Your task to perform on an android device: Go to ESPN.com Image 0: 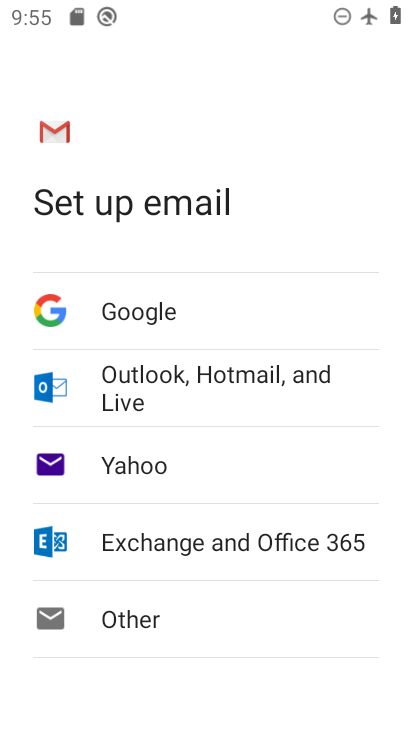
Step 0: press home button
Your task to perform on an android device: Go to ESPN.com Image 1: 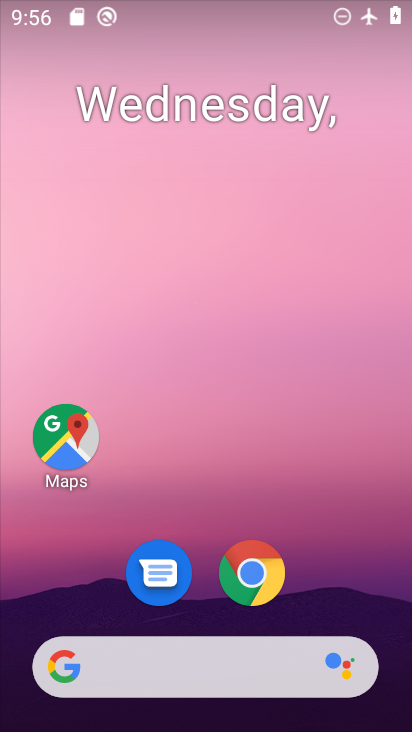
Step 1: click (246, 578)
Your task to perform on an android device: Go to ESPN.com Image 2: 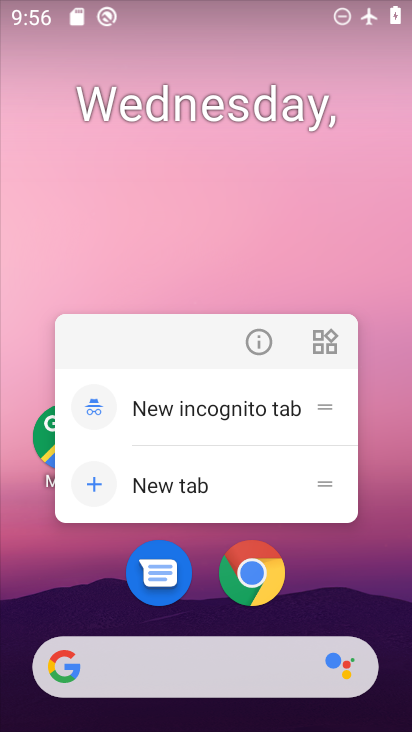
Step 2: click (246, 578)
Your task to perform on an android device: Go to ESPN.com Image 3: 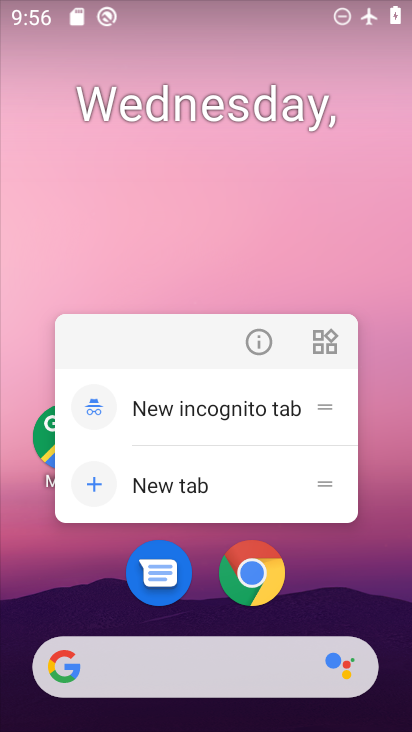
Step 3: click (246, 578)
Your task to perform on an android device: Go to ESPN.com Image 4: 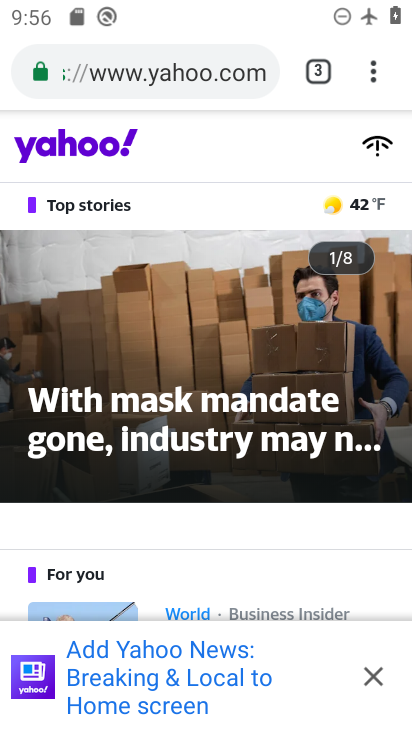
Step 4: click (270, 65)
Your task to perform on an android device: Go to ESPN.com Image 5: 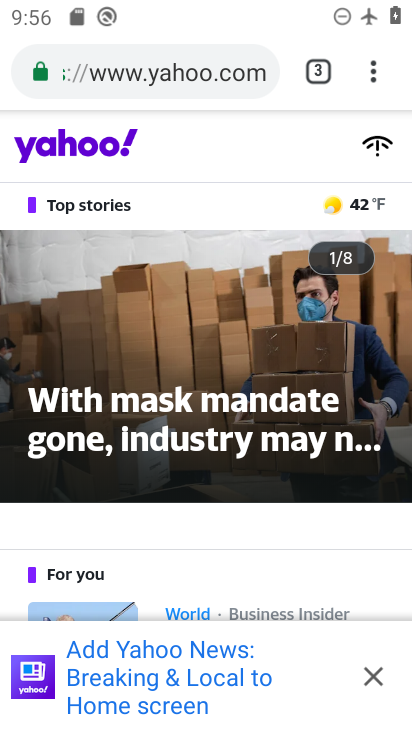
Step 5: click (274, 68)
Your task to perform on an android device: Go to ESPN.com Image 6: 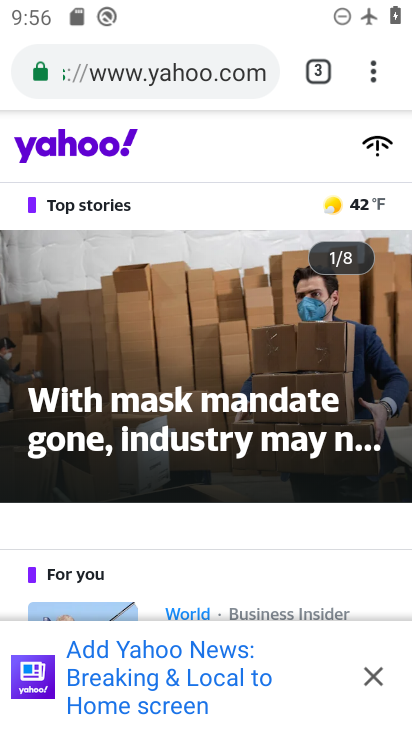
Step 6: click (266, 74)
Your task to perform on an android device: Go to ESPN.com Image 7: 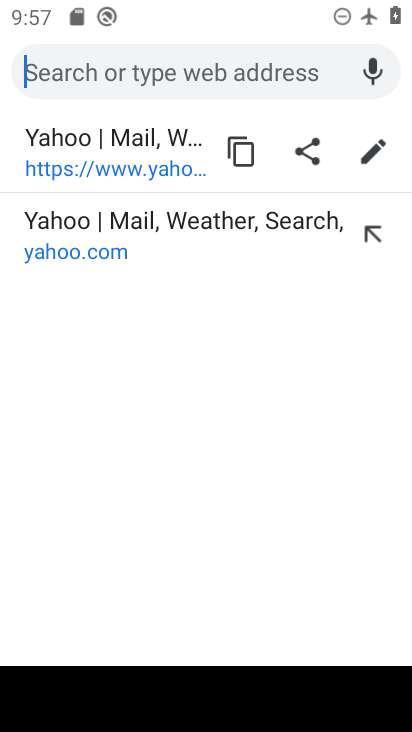
Step 7: type "ESPN.com"
Your task to perform on an android device: Go to ESPN.com Image 8: 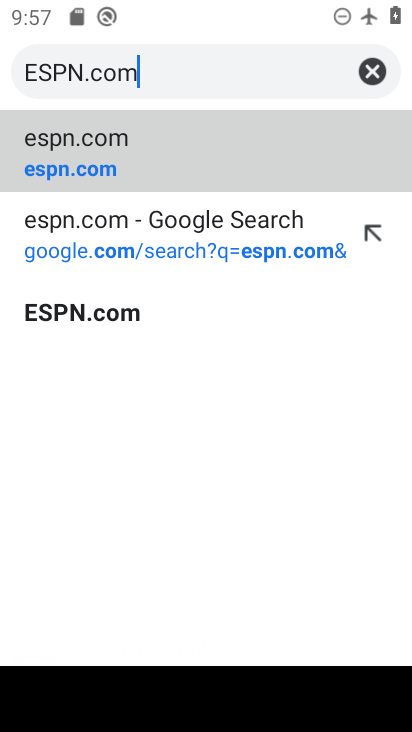
Step 8: click (89, 301)
Your task to perform on an android device: Go to ESPN.com Image 9: 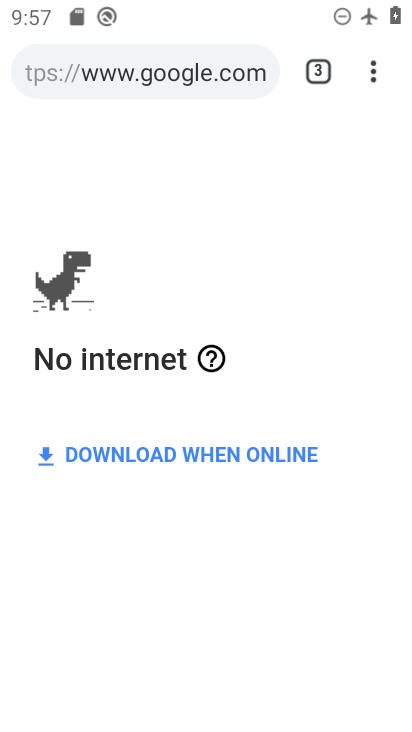
Step 9: task complete